Your task to perform on an android device: Check the news Image 0: 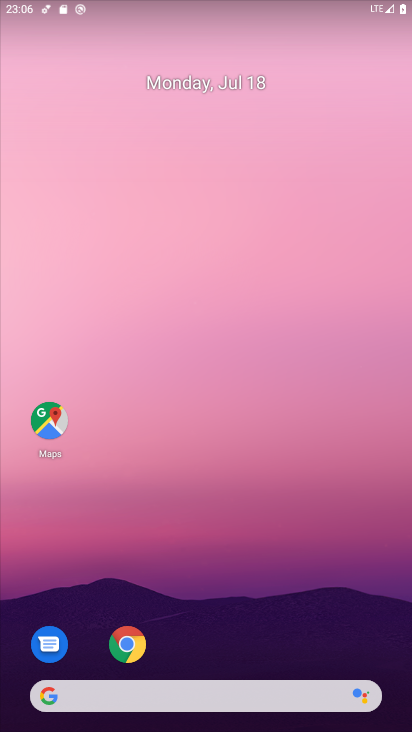
Step 0: drag from (326, 615) to (325, 356)
Your task to perform on an android device: Check the news Image 1: 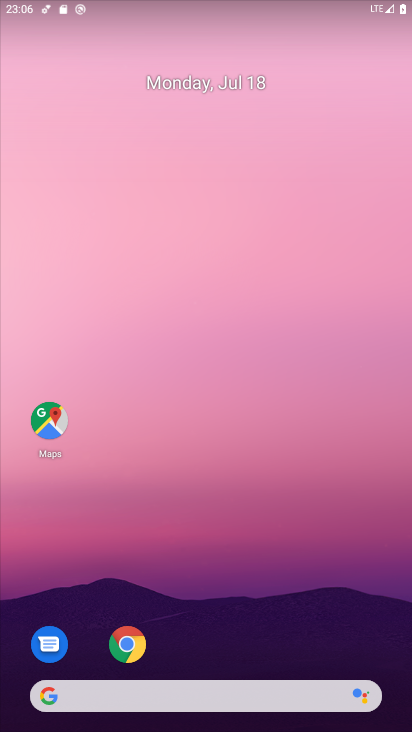
Step 1: drag from (130, 231) to (394, 317)
Your task to perform on an android device: Check the news Image 2: 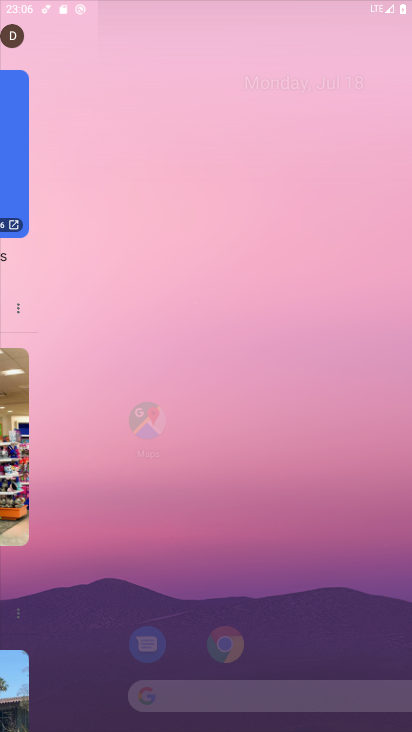
Step 2: drag from (268, 312) to (406, 377)
Your task to perform on an android device: Check the news Image 3: 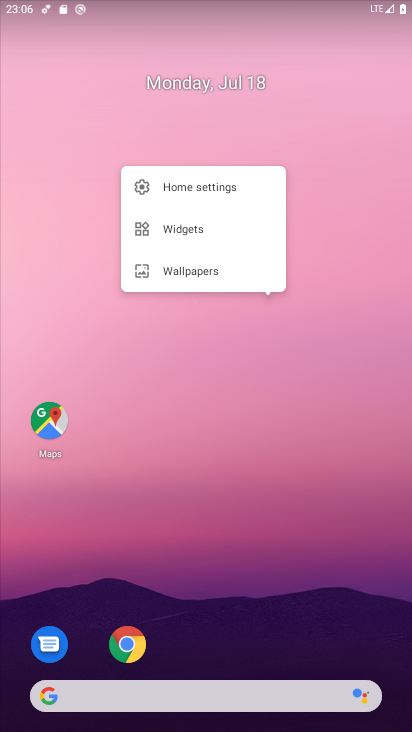
Step 3: click (299, 391)
Your task to perform on an android device: Check the news Image 4: 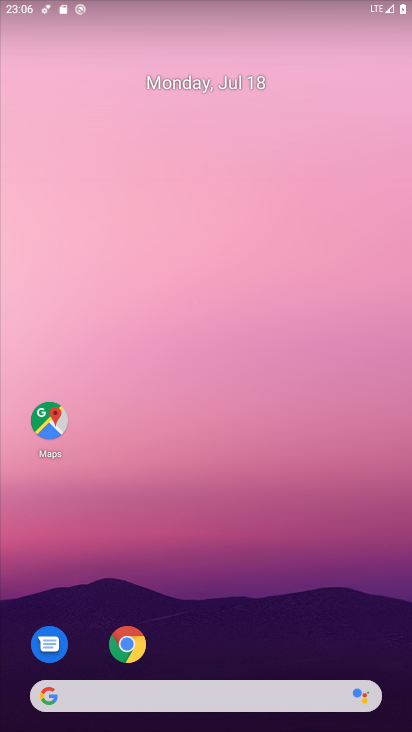
Step 4: drag from (0, 247) to (403, 322)
Your task to perform on an android device: Check the news Image 5: 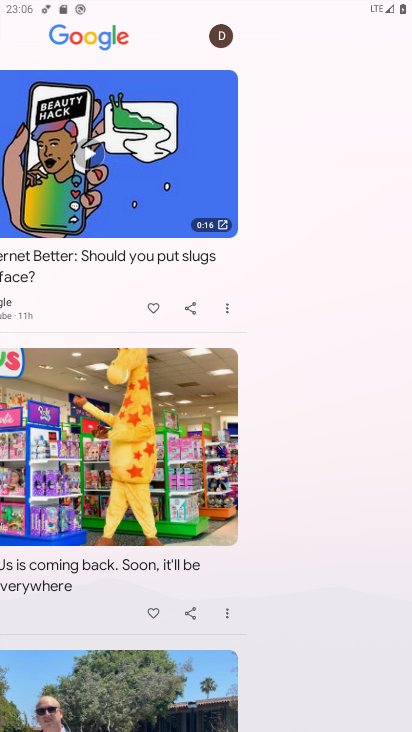
Step 5: drag from (313, 332) to (409, 503)
Your task to perform on an android device: Check the news Image 6: 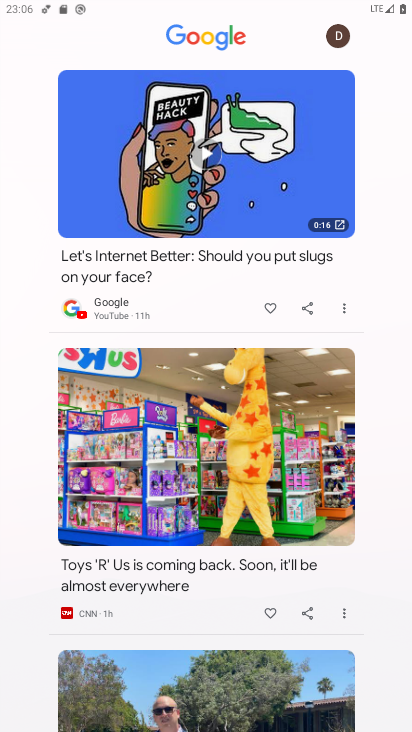
Step 6: click (356, 501)
Your task to perform on an android device: Check the news Image 7: 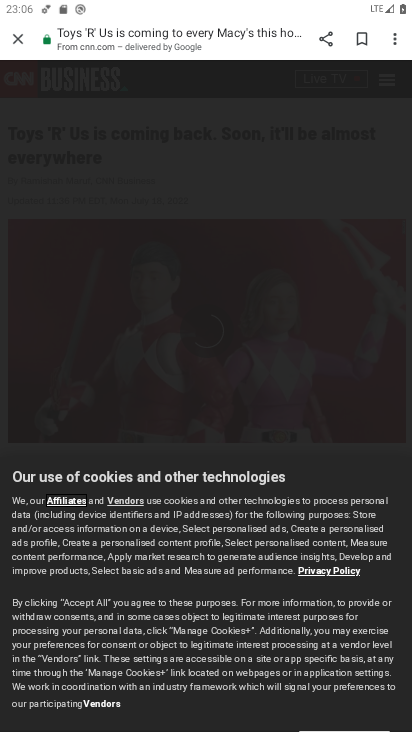
Step 7: task complete